Your task to perform on an android device: uninstall "PlayWell" Image 0: 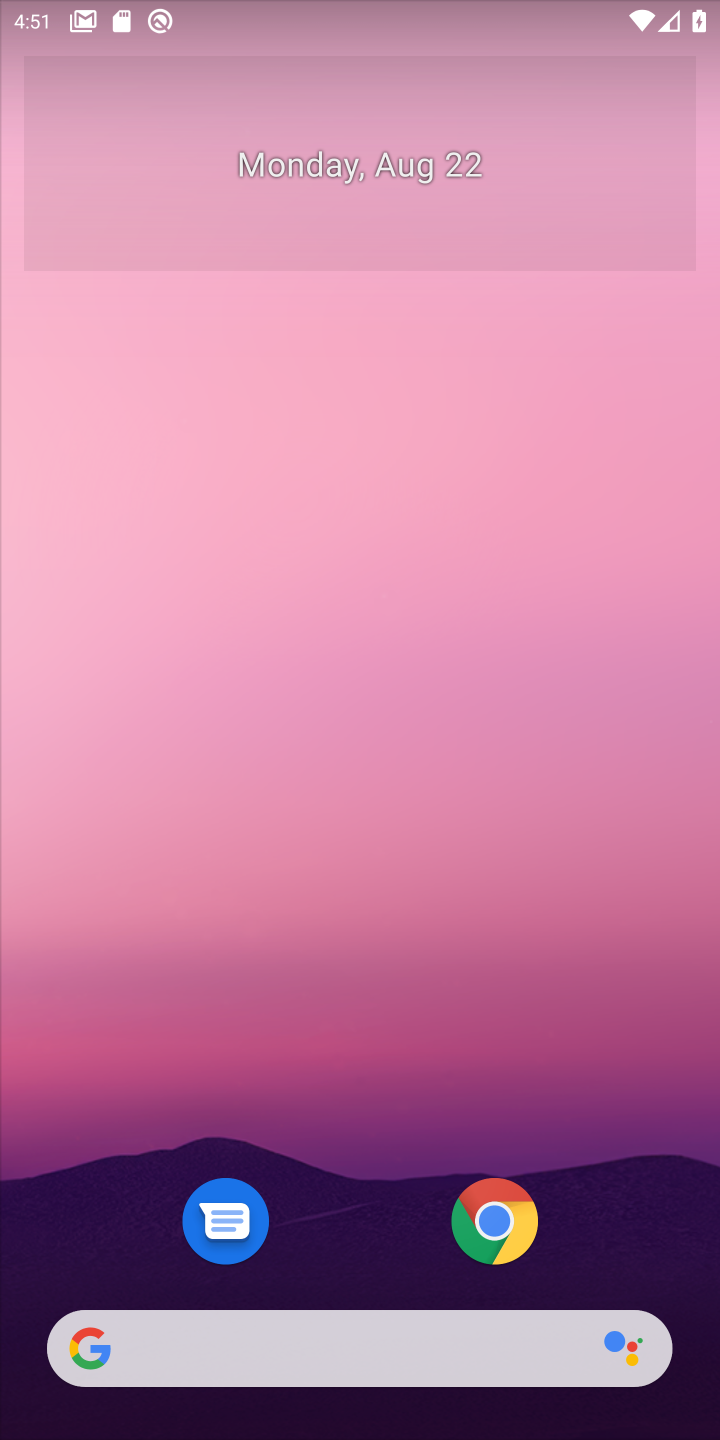
Step 0: drag from (222, 1103) to (347, 85)
Your task to perform on an android device: uninstall "PlayWell" Image 1: 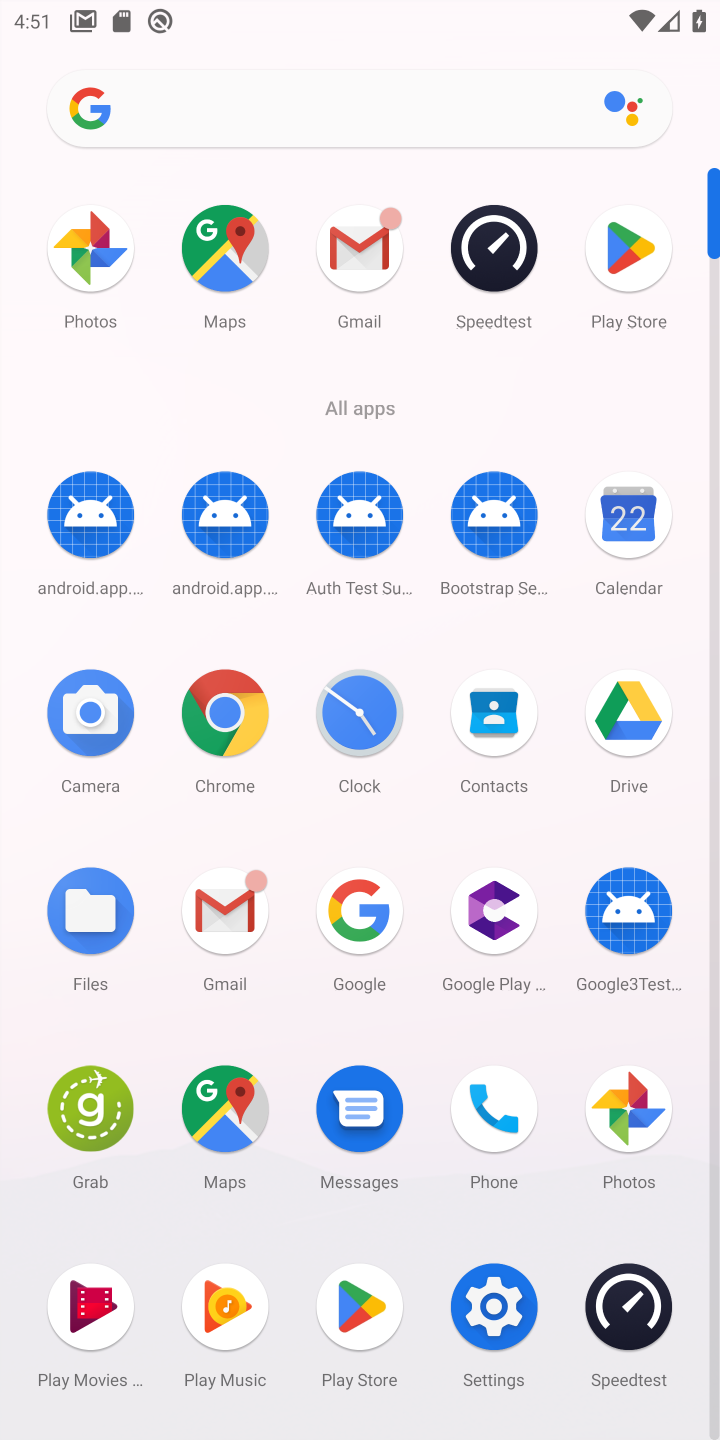
Step 1: click (625, 252)
Your task to perform on an android device: uninstall "PlayWell" Image 2: 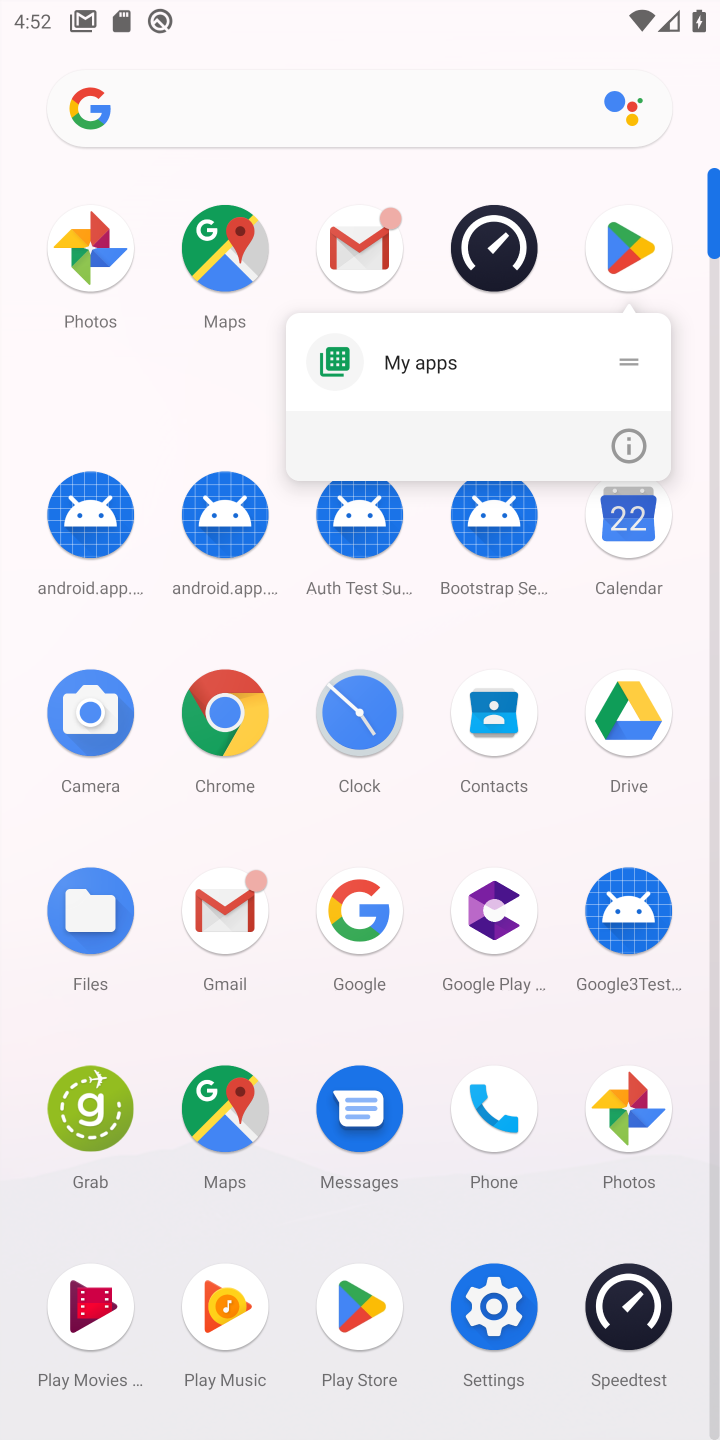
Step 2: click (601, 212)
Your task to perform on an android device: uninstall "PlayWell" Image 3: 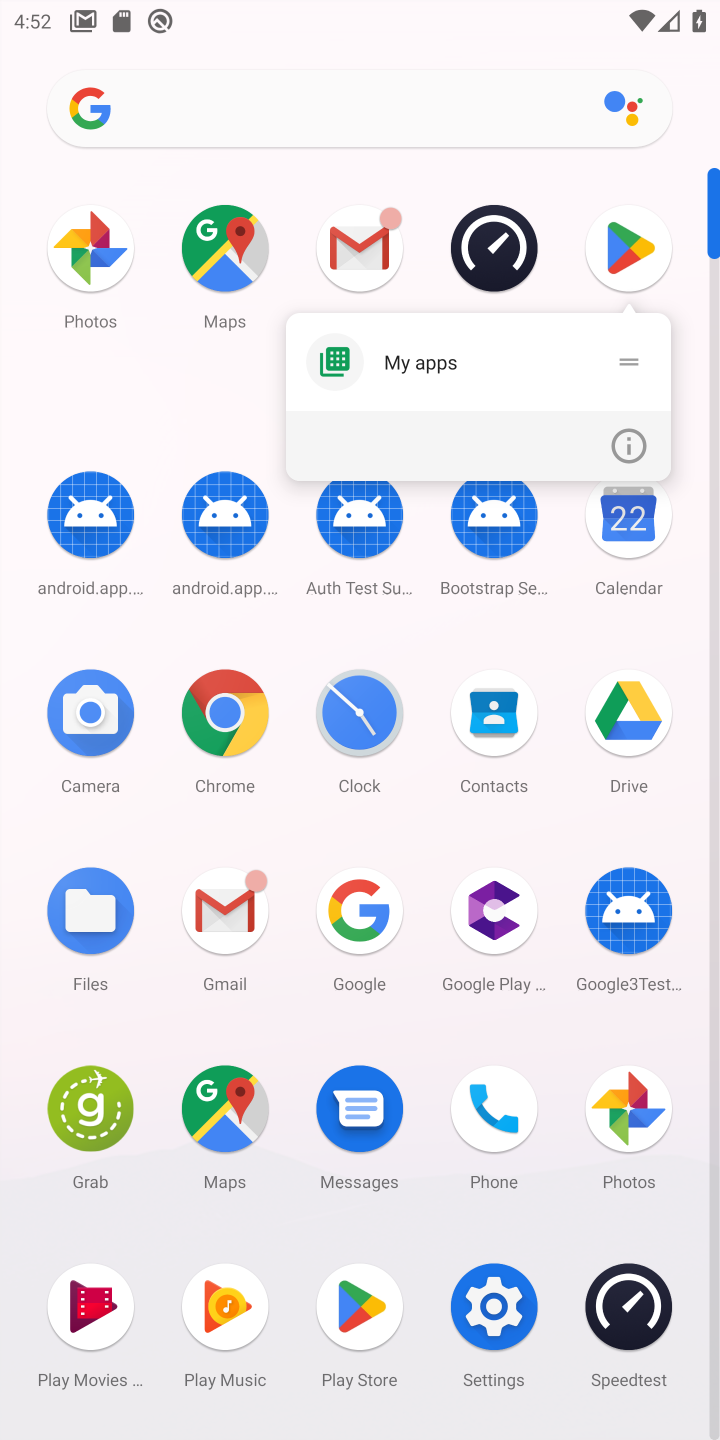
Step 3: click (608, 230)
Your task to perform on an android device: uninstall "PlayWell" Image 4: 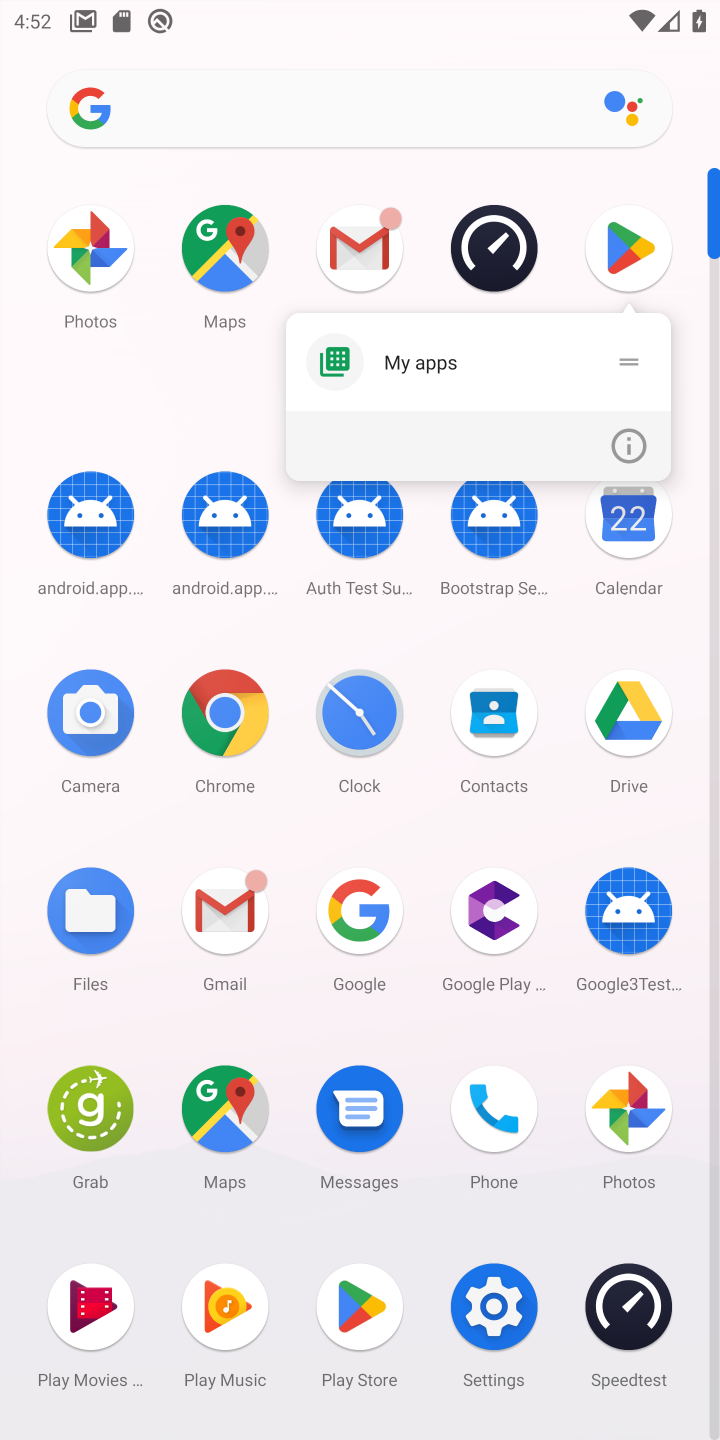
Step 4: click (615, 245)
Your task to perform on an android device: uninstall "PlayWell" Image 5: 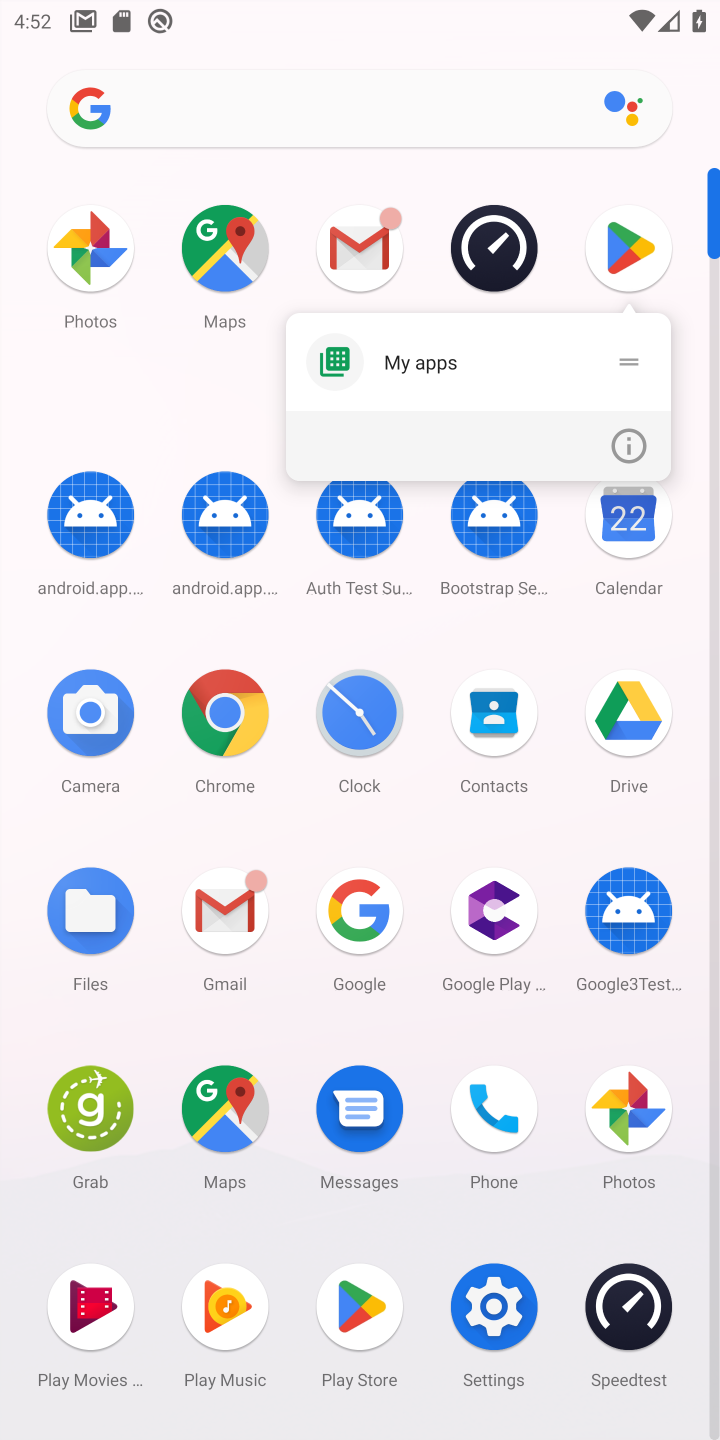
Step 5: click (615, 262)
Your task to perform on an android device: uninstall "PlayWell" Image 6: 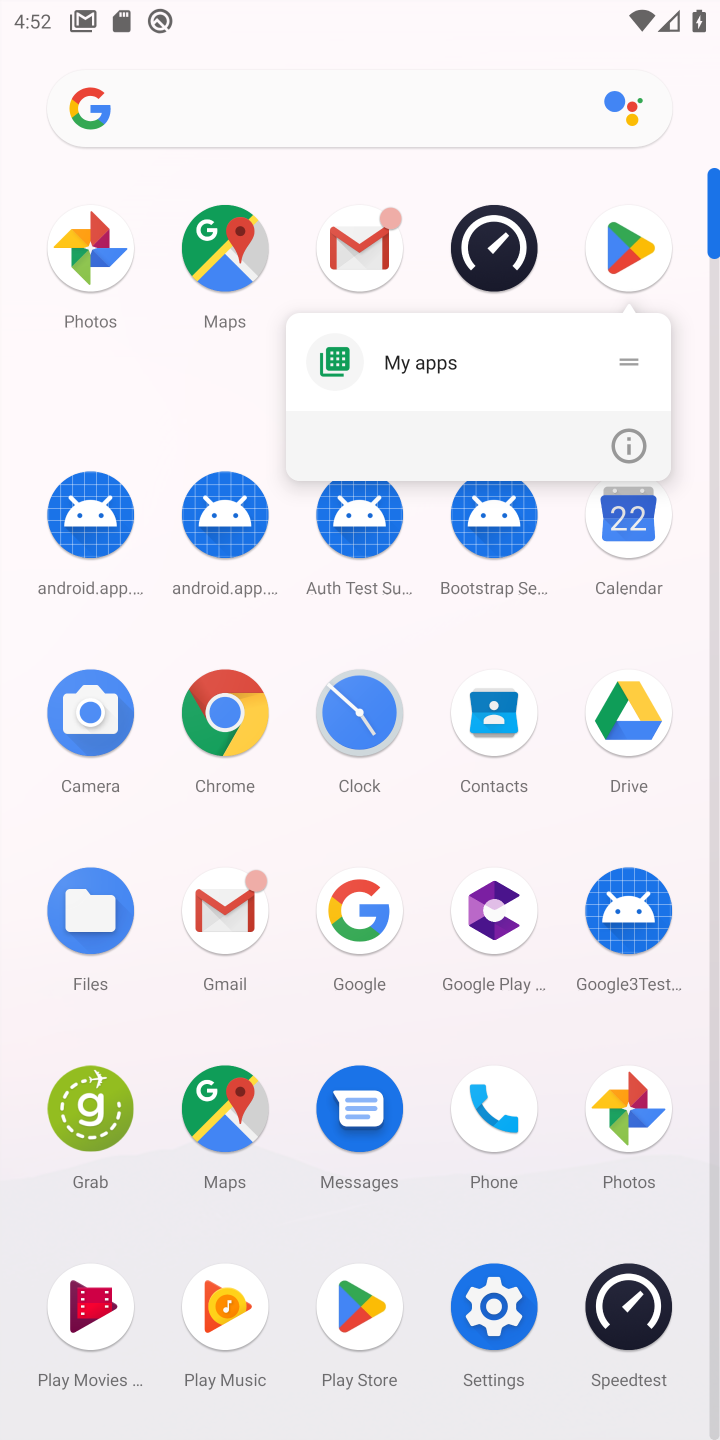
Step 6: click (615, 264)
Your task to perform on an android device: uninstall "PlayWell" Image 7: 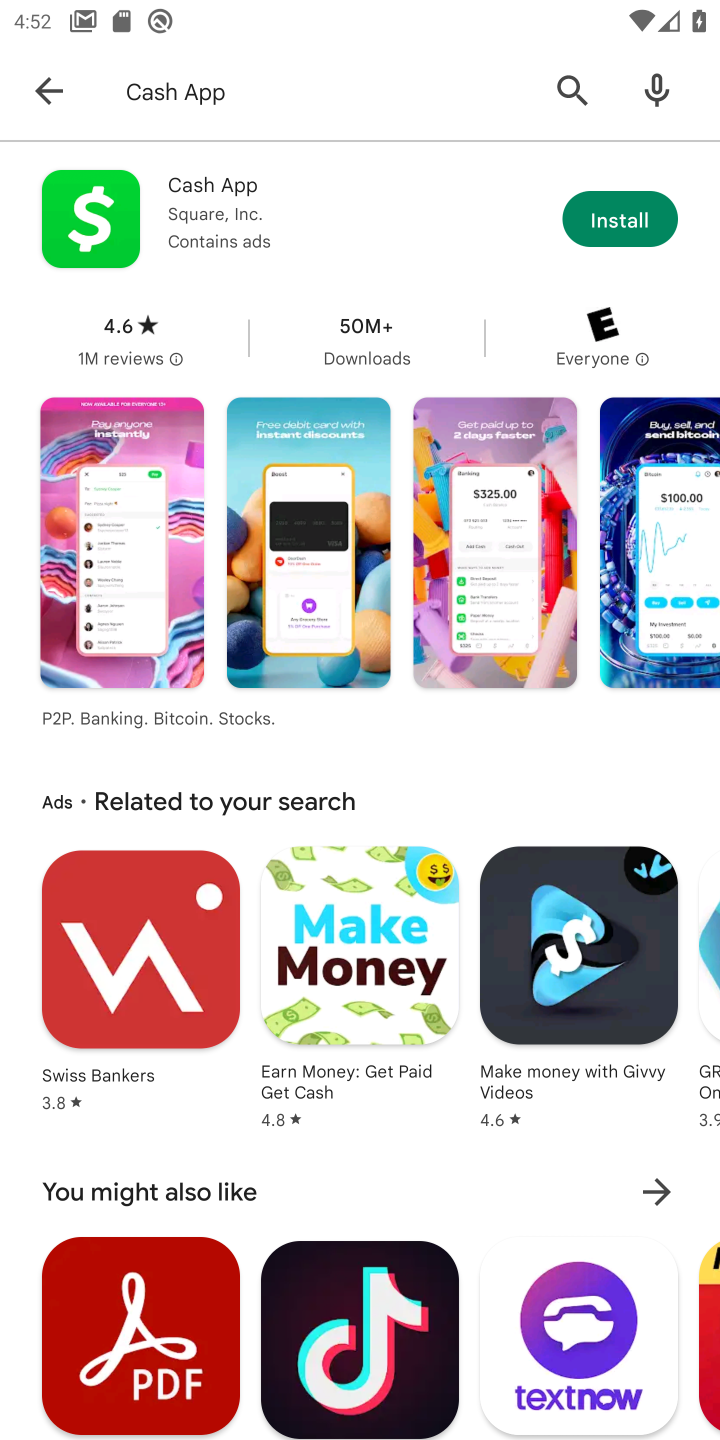
Step 7: press back button
Your task to perform on an android device: uninstall "PlayWell" Image 8: 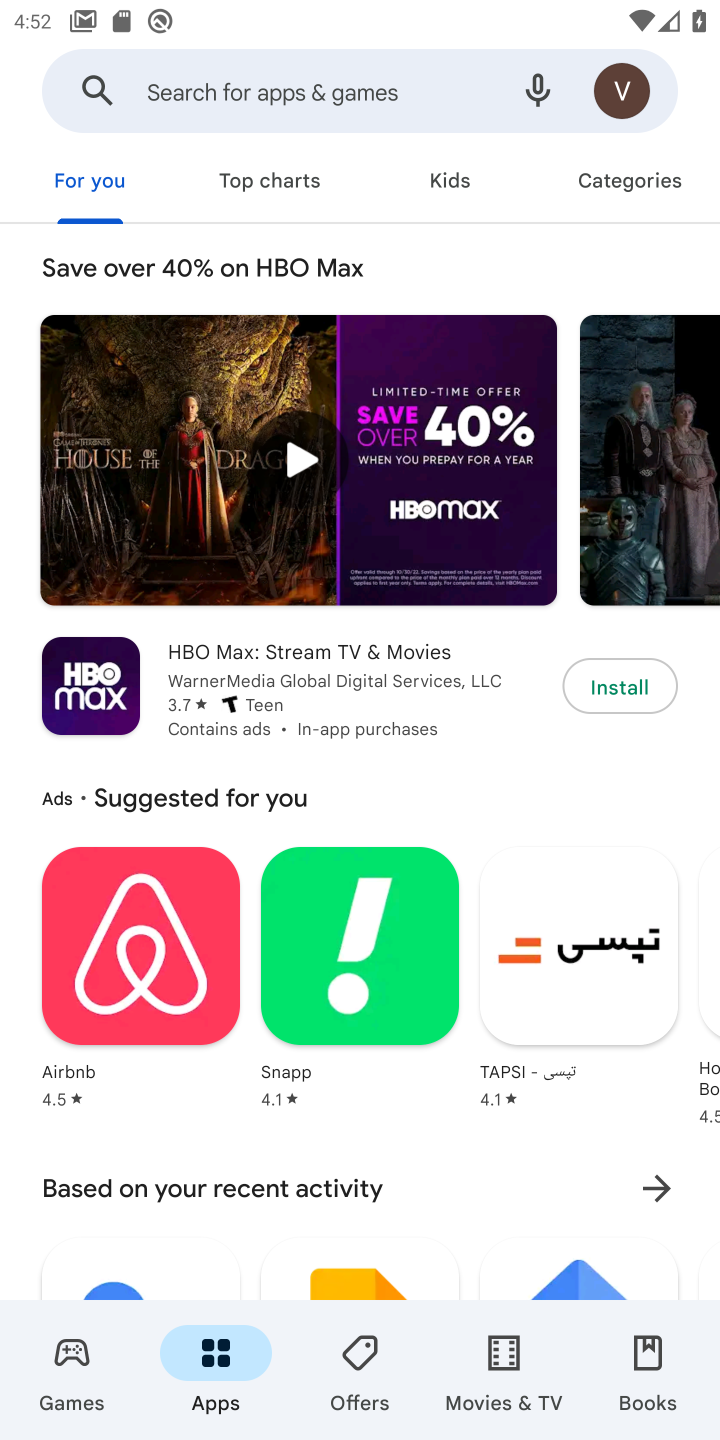
Step 8: click (297, 93)
Your task to perform on an android device: uninstall "PlayWell" Image 9: 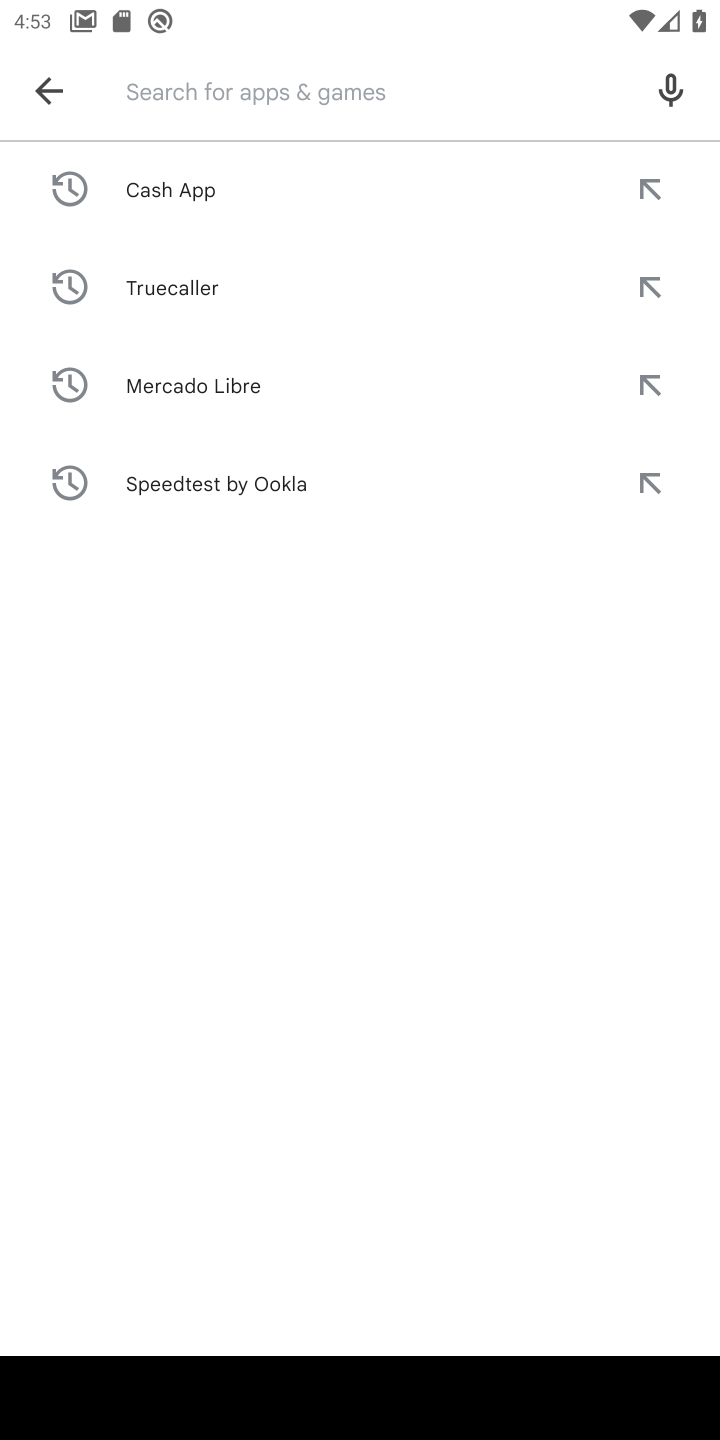
Step 9: type "PlayWell"
Your task to perform on an android device: uninstall "PlayWell" Image 10: 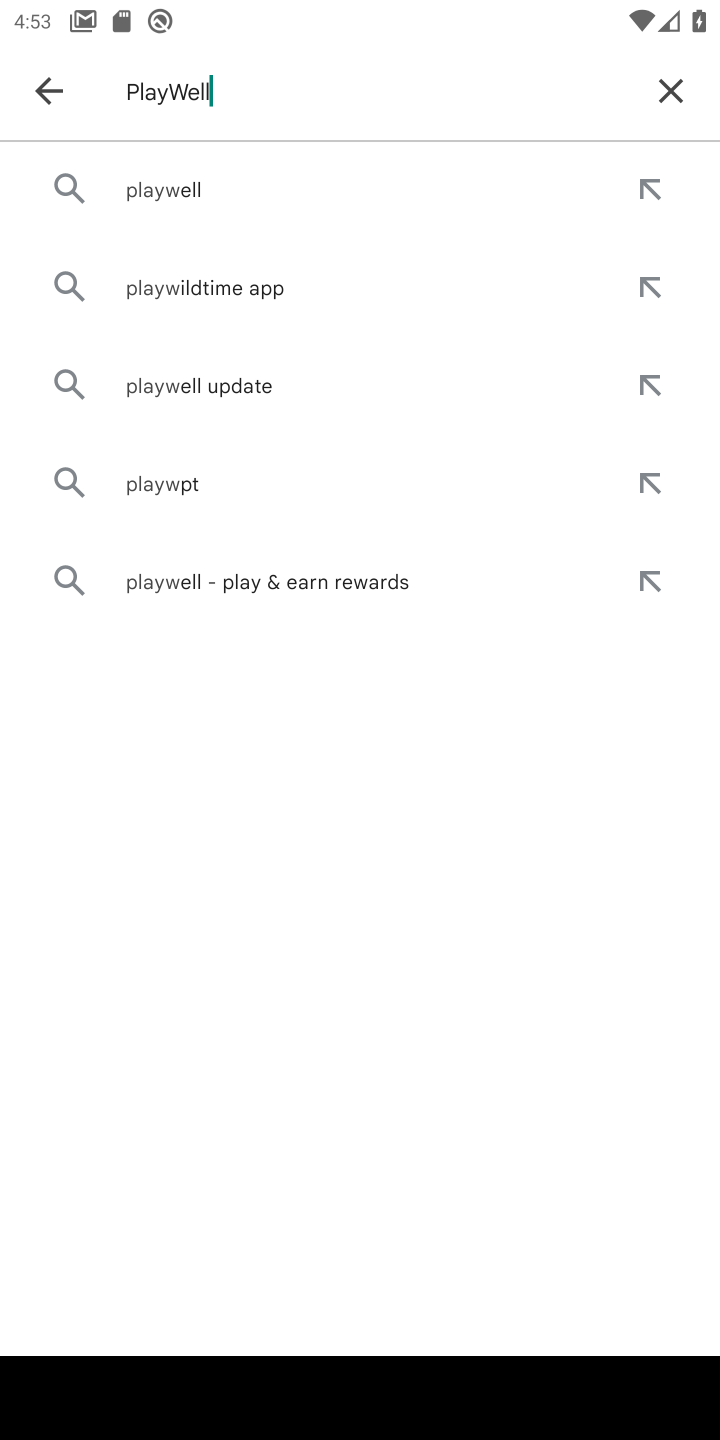
Step 10: press enter
Your task to perform on an android device: uninstall "PlayWell" Image 11: 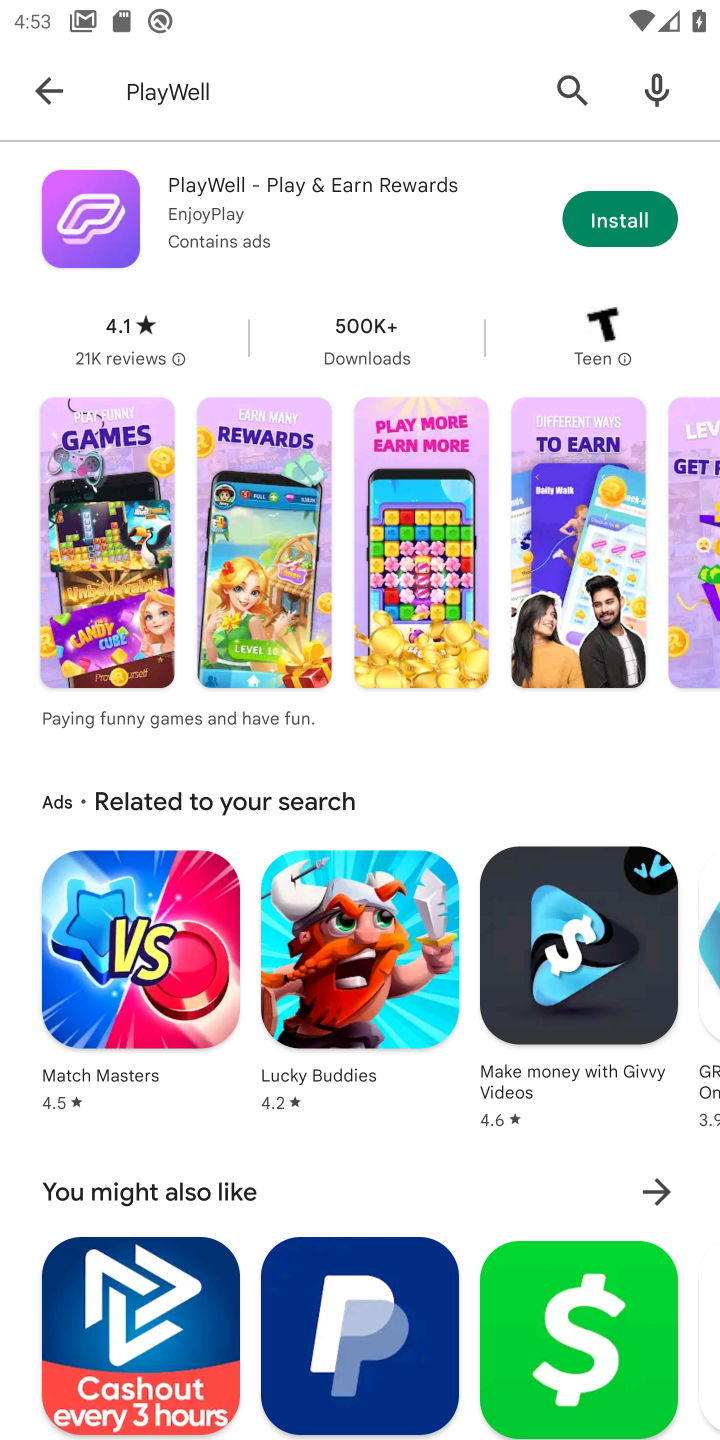
Step 11: task complete